Your task to perform on an android device: set the stopwatch Image 0: 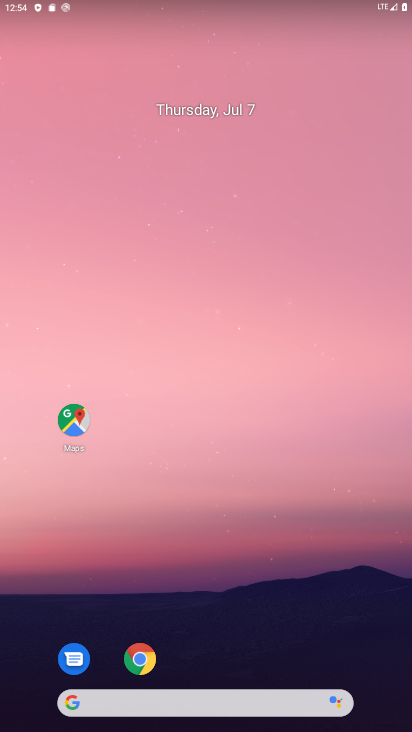
Step 0: drag from (265, 565) to (161, 155)
Your task to perform on an android device: set the stopwatch Image 1: 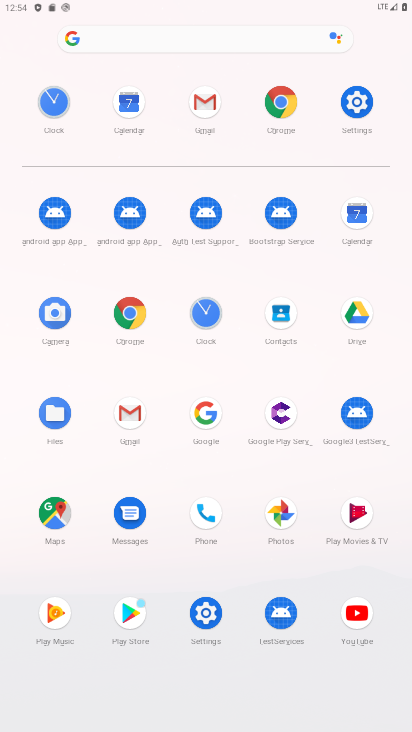
Step 1: click (202, 314)
Your task to perform on an android device: set the stopwatch Image 2: 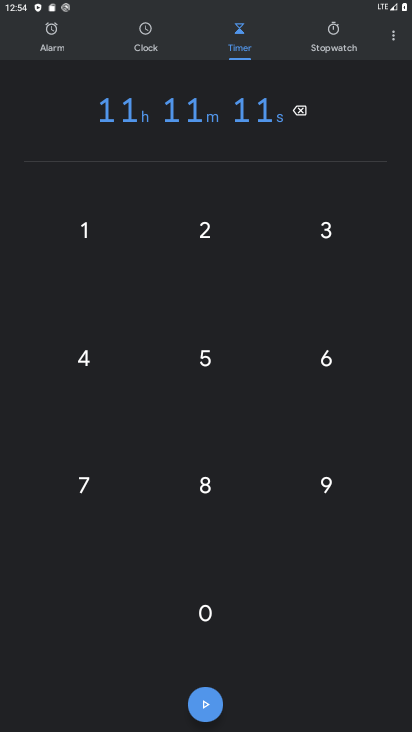
Step 2: click (331, 25)
Your task to perform on an android device: set the stopwatch Image 3: 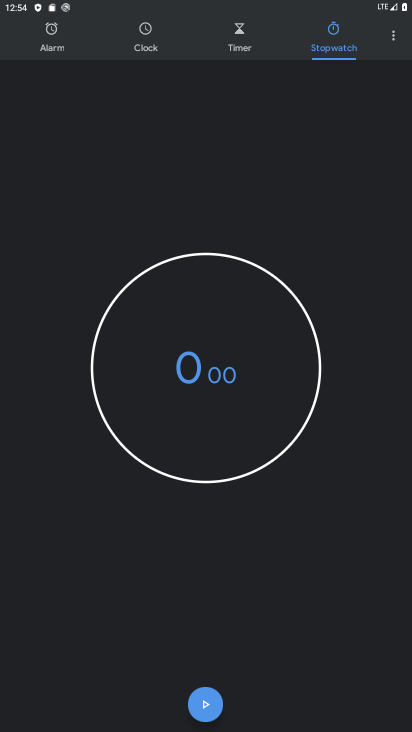
Step 3: task complete